Your task to perform on an android device: open a new tab in the chrome app Image 0: 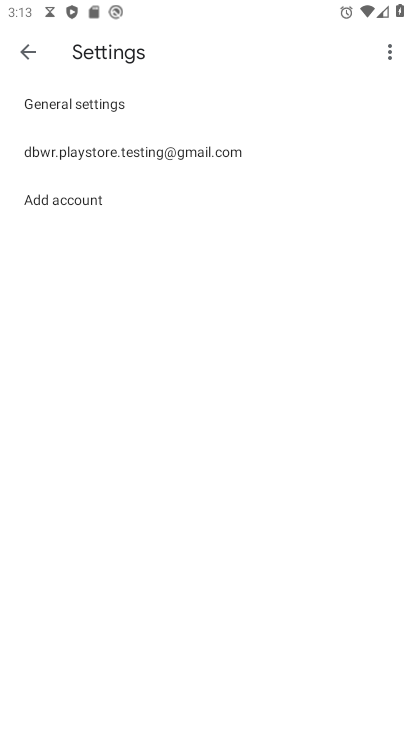
Step 0: press home button
Your task to perform on an android device: open a new tab in the chrome app Image 1: 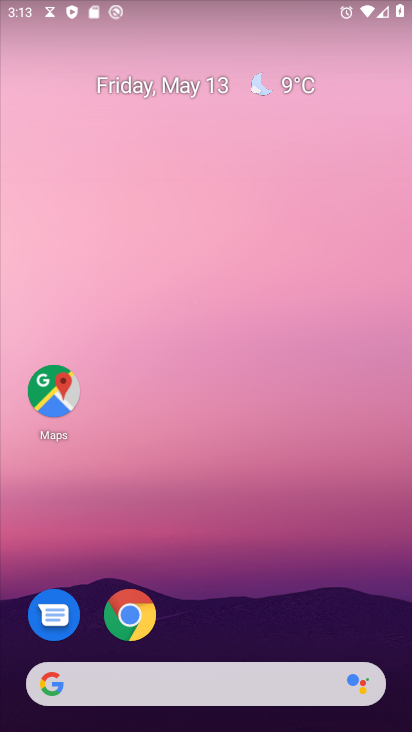
Step 1: click (129, 612)
Your task to perform on an android device: open a new tab in the chrome app Image 2: 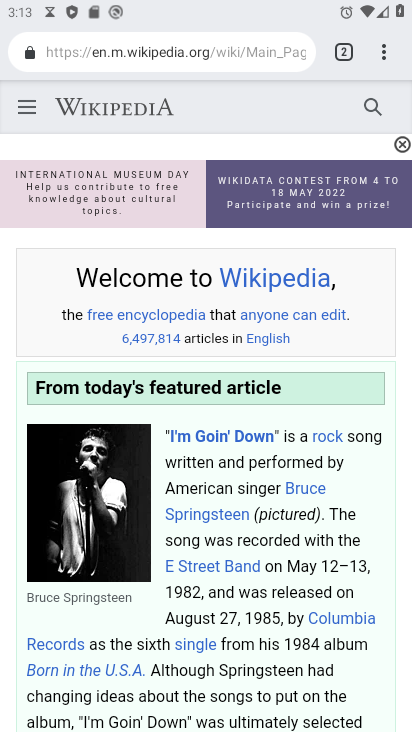
Step 2: click (383, 54)
Your task to perform on an android device: open a new tab in the chrome app Image 3: 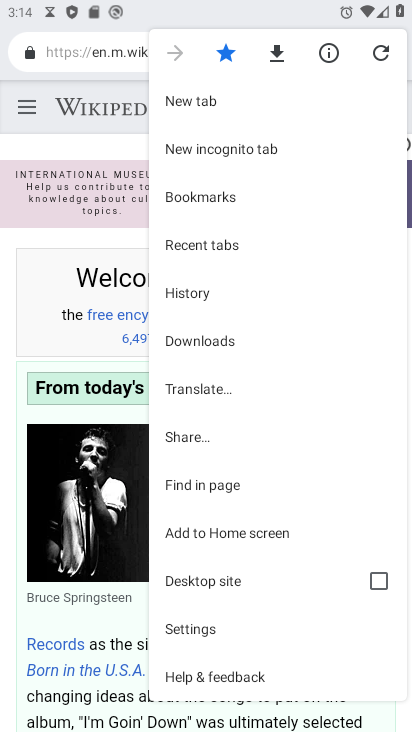
Step 3: click (179, 97)
Your task to perform on an android device: open a new tab in the chrome app Image 4: 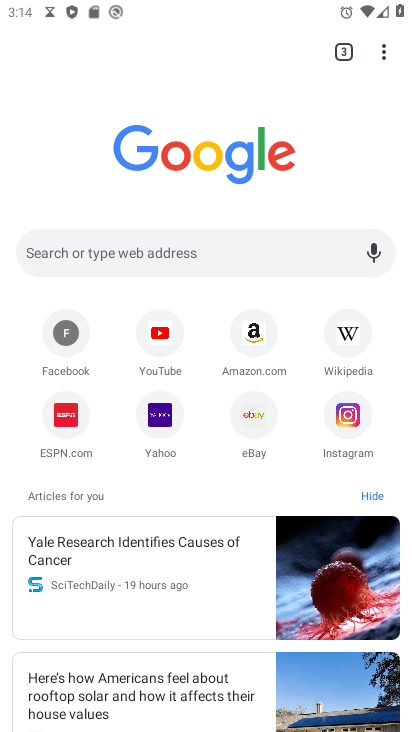
Step 4: task complete